Your task to perform on an android device: turn smart compose on in the gmail app Image 0: 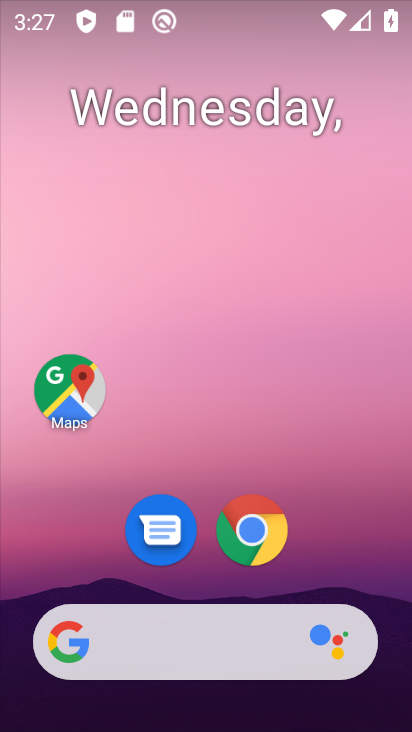
Step 0: drag from (346, 585) to (287, 124)
Your task to perform on an android device: turn smart compose on in the gmail app Image 1: 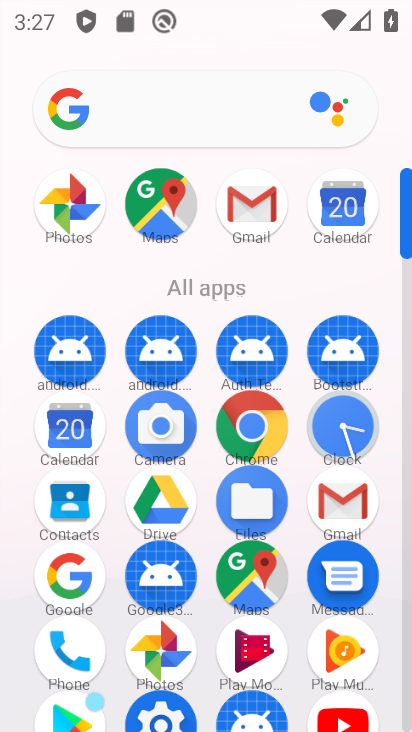
Step 1: click (358, 500)
Your task to perform on an android device: turn smart compose on in the gmail app Image 2: 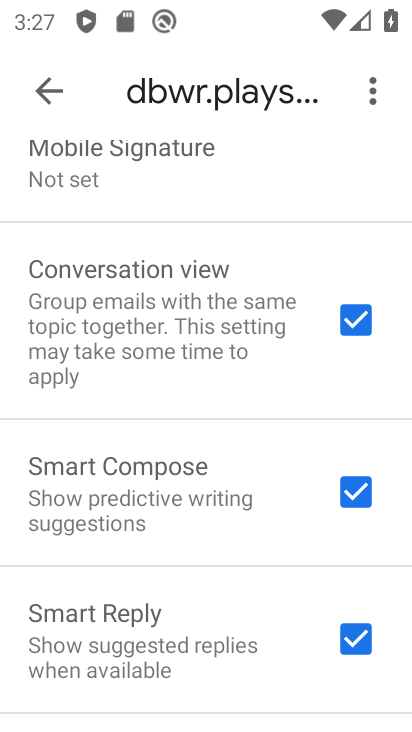
Step 2: task complete